Your task to perform on an android device: move an email to a new category in the gmail app Image 0: 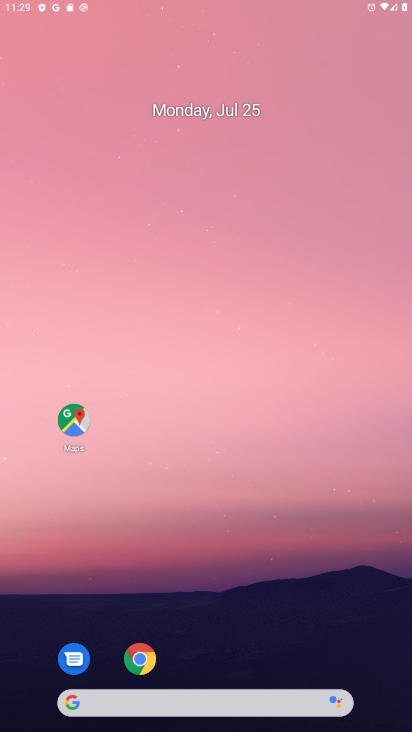
Step 0: press home button
Your task to perform on an android device: move an email to a new category in the gmail app Image 1: 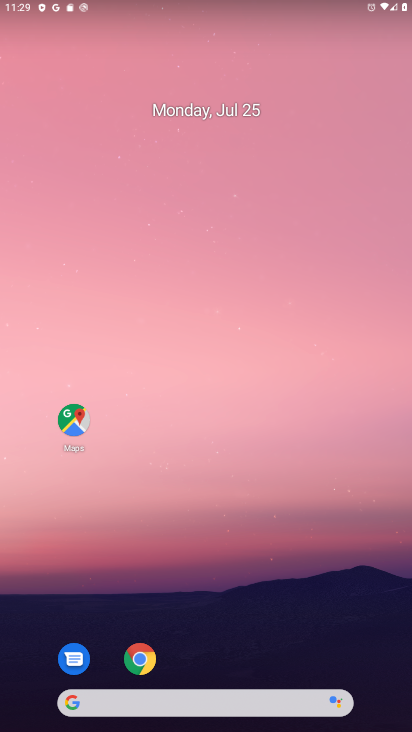
Step 1: drag from (242, 611) to (224, 131)
Your task to perform on an android device: move an email to a new category in the gmail app Image 2: 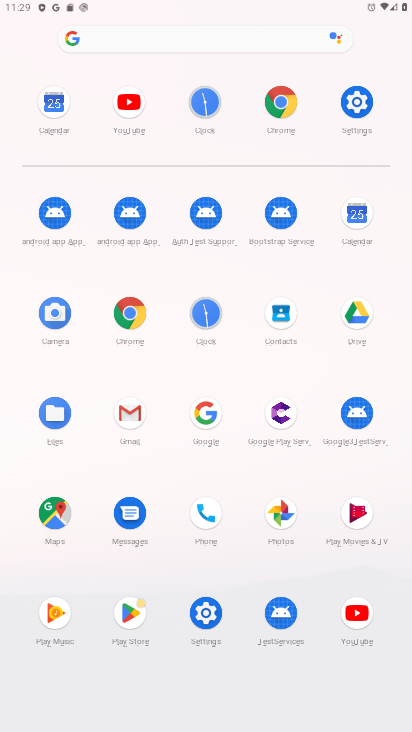
Step 2: click (130, 417)
Your task to perform on an android device: move an email to a new category in the gmail app Image 3: 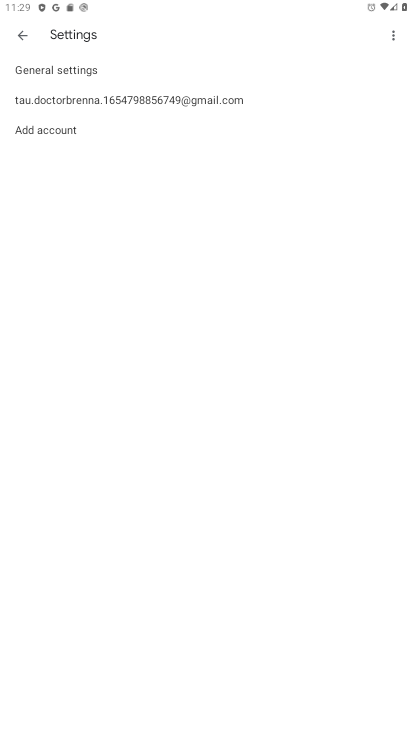
Step 3: click (20, 31)
Your task to perform on an android device: move an email to a new category in the gmail app Image 4: 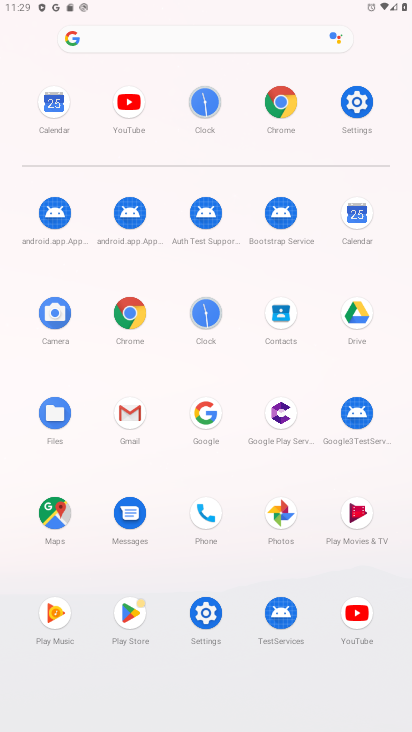
Step 4: click (131, 410)
Your task to perform on an android device: move an email to a new category in the gmail app Image 5: 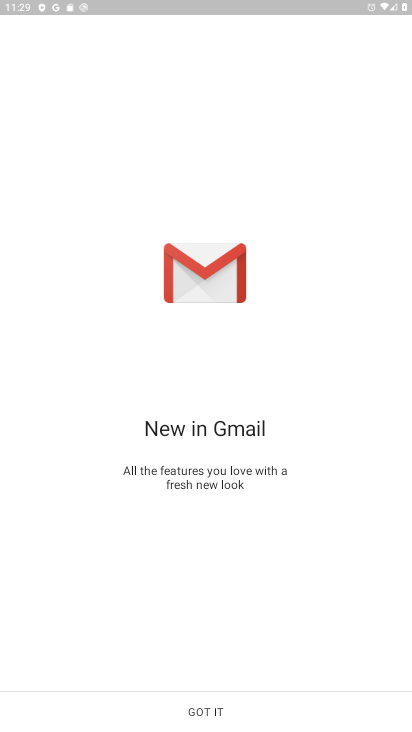
Step 5: click (210, 710)
Your task to perform on an android device: move an email to a new category in the gmail app Image 6: 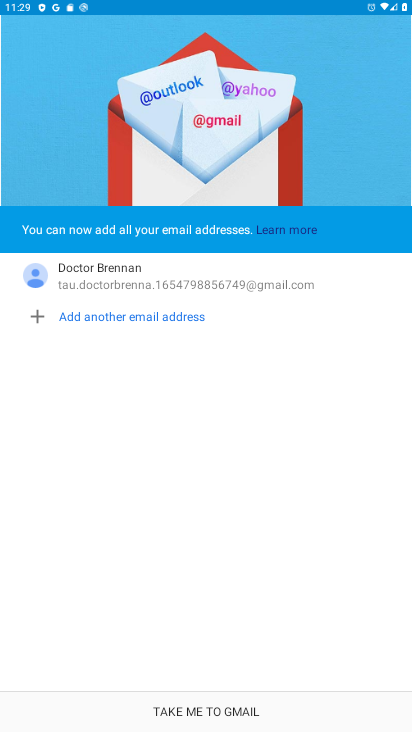
Step 6: click (212, 708)
Your task to perform on an android device: move an email to a new category in the gmail app Image 7: 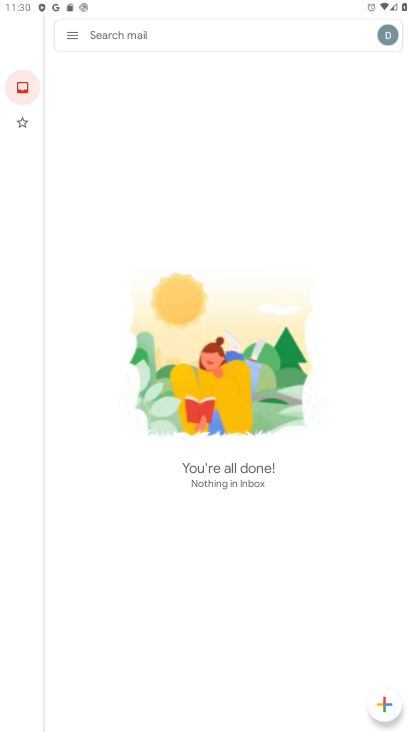
Step 7: click (70, 27)
Your task to perform on an android device: move an email to a new category in the gmail app Image 8: 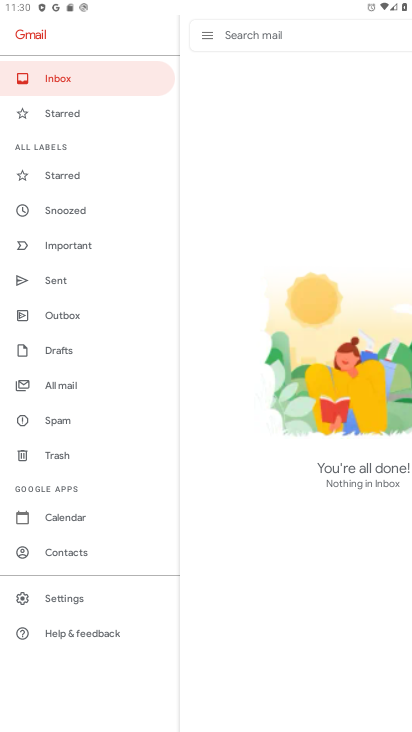
Step 8: click (64, 387)
Your task to perform on an android device: move an email to a new category in the gmail app Image 9: 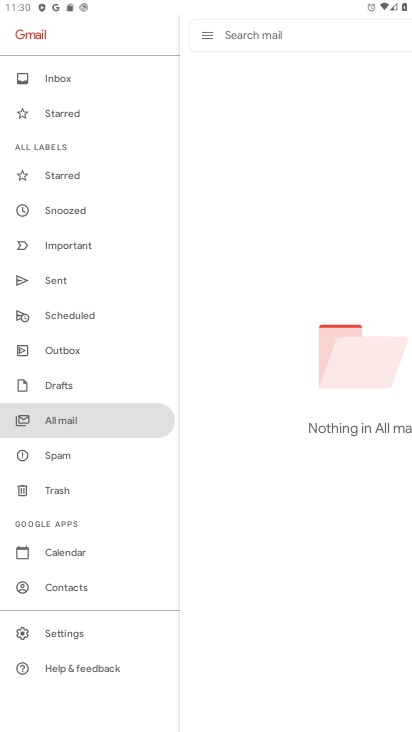
Step 9: task complete